Your task to perform on an android device: Clear the cart on costco.com. Add "macbook" to the cart on costco.com, then select checkout. Image 0: 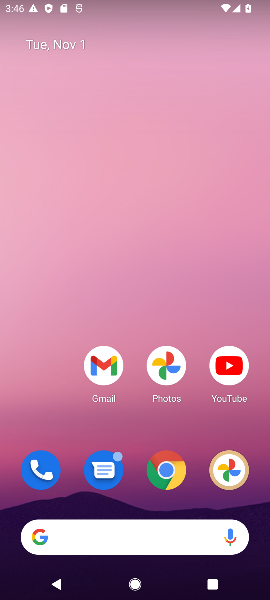
Step 0: click (159, 478)
Your task to perform on an android device: Clear the cart on costco.com. Add "macbook" to the cart on costco.com, then select checkout. Image 1: 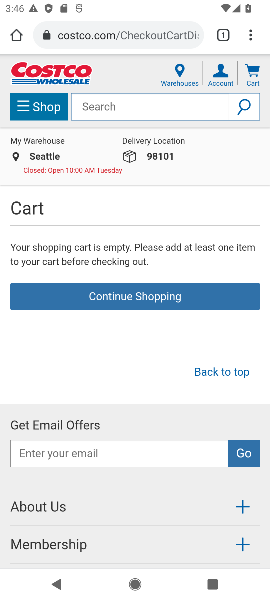
Step 1: click (150, 29)
Your task to perform on an android device: Clear the cart on costco.com. Add "macbook" to the cart on costco.com, then select checkout. Image 2: 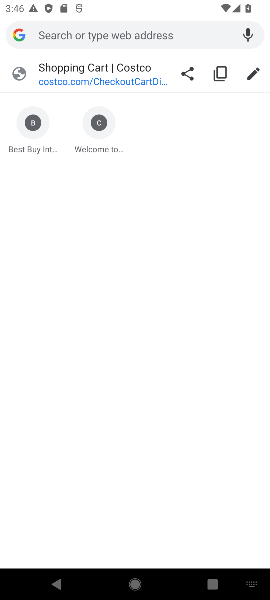
Step 2: type "costco.com"
Your task to perform on an android device: Clear the cart on costco.com. Add "macbook" to the cart on costco.com, then select checkout. Image 3: 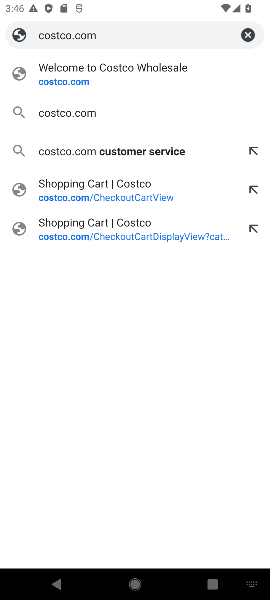
Step 3: press enter
Your task to perform on an android device: Clear the cart on costco.com. Add "macbook" to the cart on costco.com, then select checkout. Image 4: 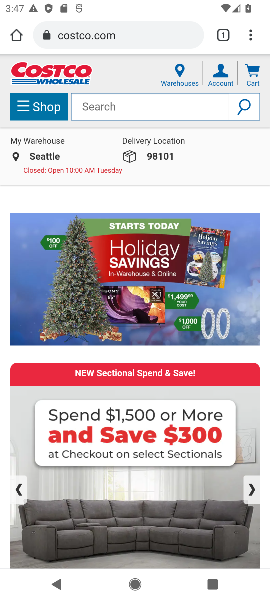
Step 4: click (257, 68)
Your task to perform on an android device: Clear the cart on costco.com. Add "macbook" to the cart on costco.com, then select checkout. Image 5: 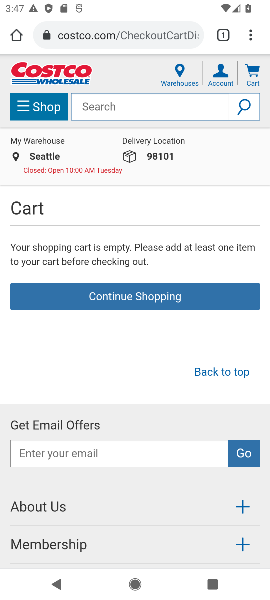
Step 5: click (188, 109)
Your task to perform on an android device: Clear the cart on costco.com. Add "macbook" to the cart on costco.com, then select checkout. Image 6: 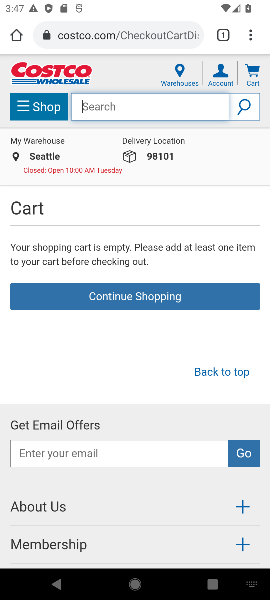
Step 6: type "macbook"
Your task to perform on an android device: Clear the cart on costco.com. Add "macbook" to the cart on costco.com, then select checkout. Image 7: 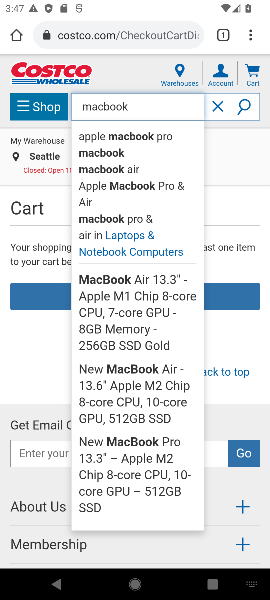
Step 7: press enter
Your task to perform on an android device: Clear the cart on costco.com. Add "macbook" to the cart on costco.com, then select checkout. Image 8: 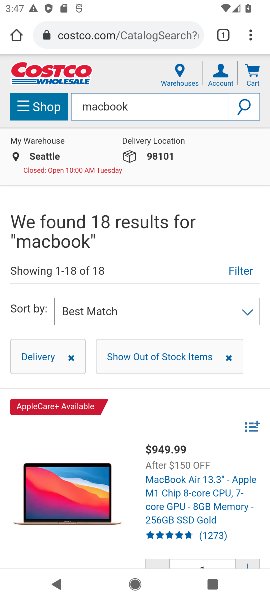
Step 8: click (110, 476)
Your task to perform on an android device: Clear the cart on costco.com. Add "macbook" to the cart on costco.com, then select checkout. Image 9: 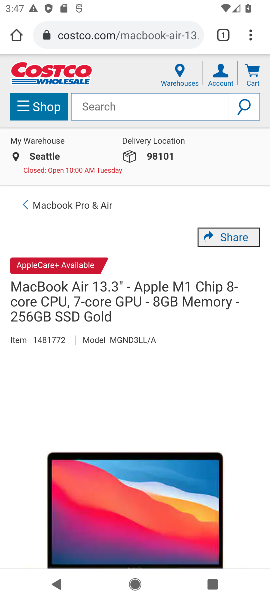
Step 9: drag from (187, 359) to (104, 63)
Your task to perform on an android device: Clear the cart on costco.com. Add "macbook" to the cart on costco.com, then select checkout. Image 10: 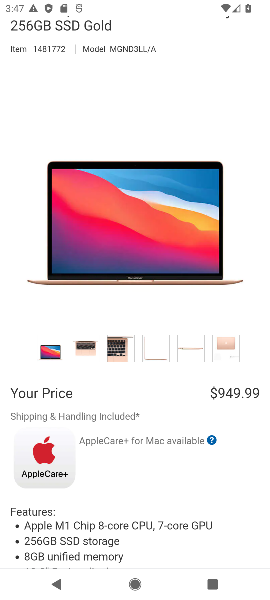
Step 10: drag from (153, 425) to (104, 92)
Your task to perform on an android device: Clear the cart on costco.com. Add "macbook" to the cart on costco.com, then select checkout. Image 11: 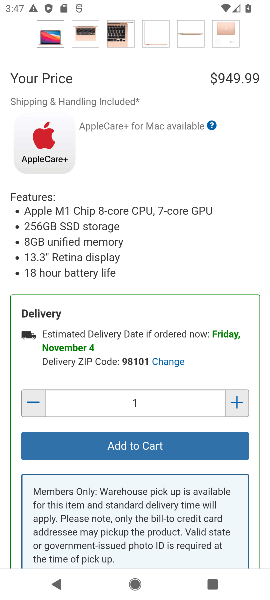
Step 11: click (121, 446)
Your task to perform on an android device: Clear the cart on costco.com. Add "macbook" to the cart on costco.com, then select checkout. Image 12: 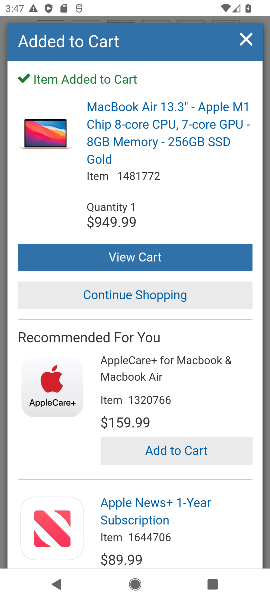
Step 12: click (159, 261)
Your task to perform on an android device: Clear the cart on costco.com. Add "macbook" to the cart on costco.com, then select checkout. Image 13: 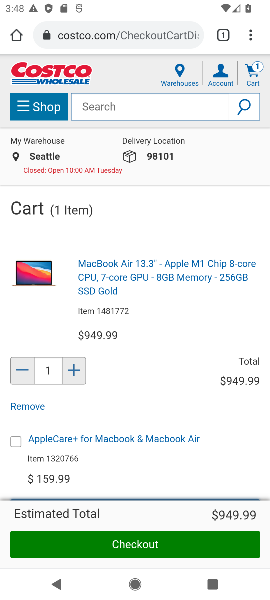
Step 13: click (159, 545)
Your task to perform on an android device: Clear the cart on costco.com. Add "macbook" to the cart on costco.com, then select checkout. Image 14: 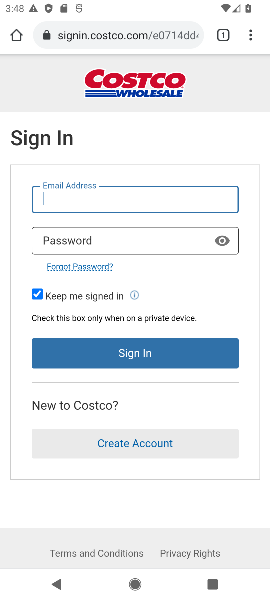
Step 14: task complete